Your task to perform on an android device: Check the news Image 0: 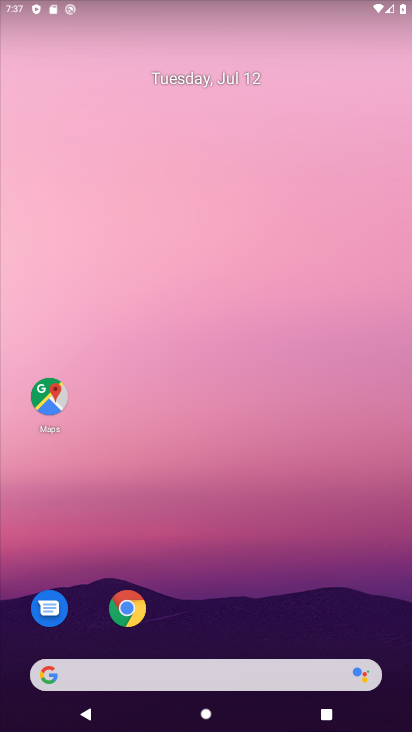
Step 0: drag from (188, 634) to (208, 288)
Your task to perform on an android device: Check the news Image 1: 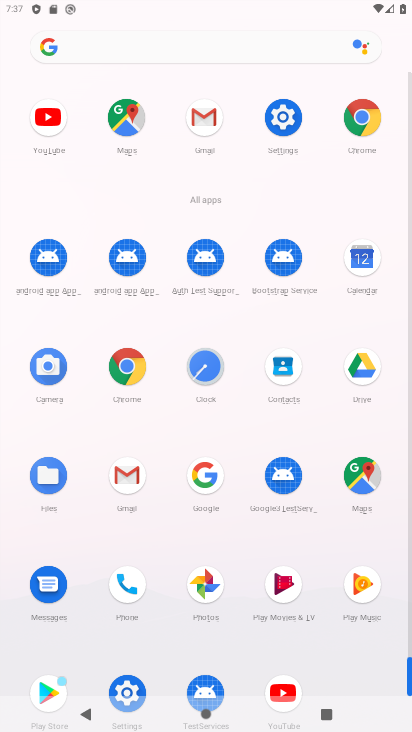
Step 1: click (358, 115)
Your task to perform on an android device: Check the news Image 2: 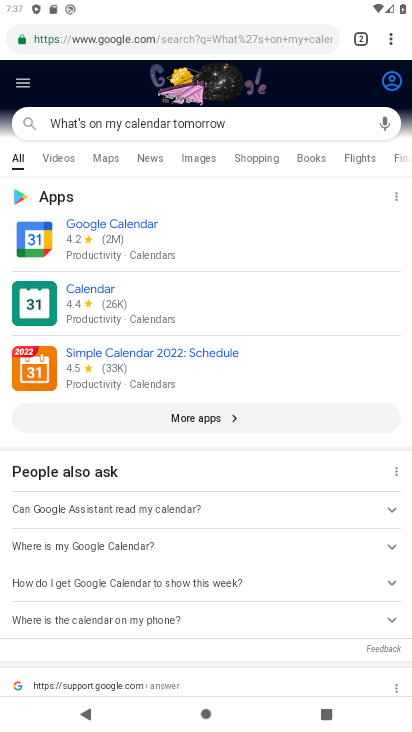
Step 2: click (397, 37)
Your task to perform on an android device: Check the news Image 3: 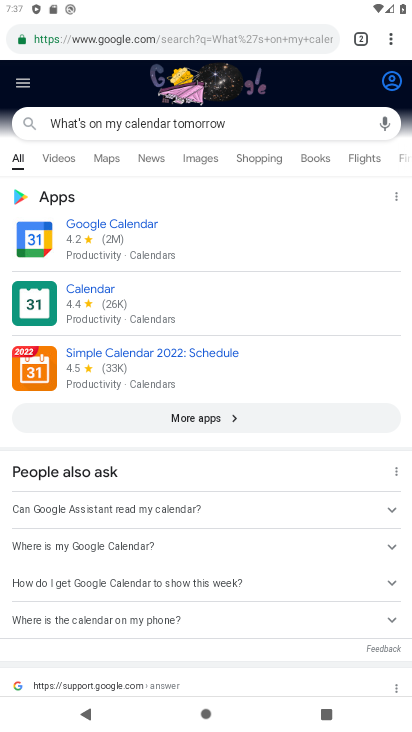
Step 3: click (390, 35)
Your task to perform on an android device: Check the news Image 4: 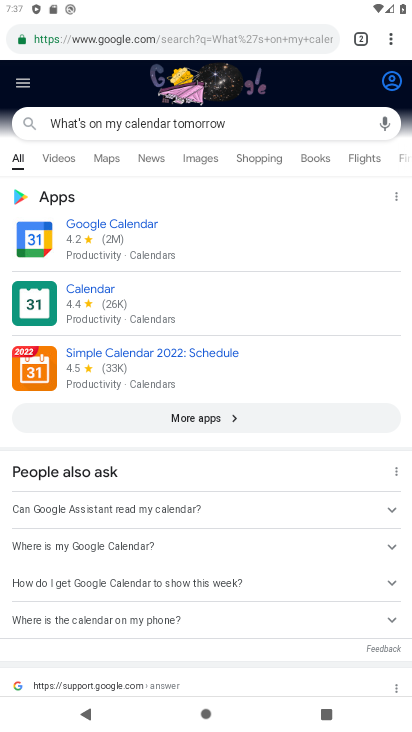
Step 4: click (390, 35)
Your task to perform on an android device: Check the news Image 5: 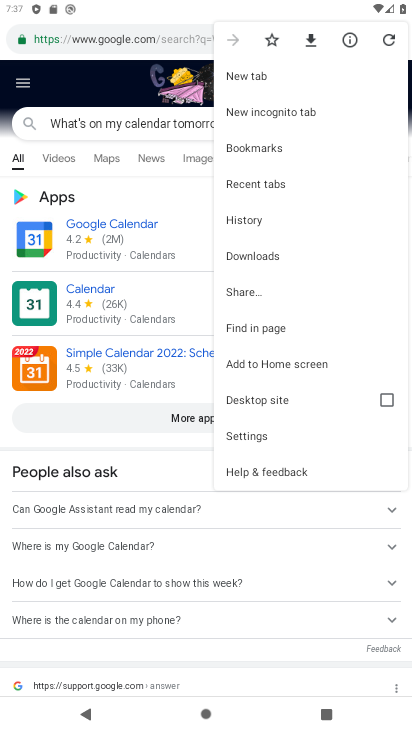
Step 5: click (252, 76)
Your task to perform on an android device: Check the news Image 6: 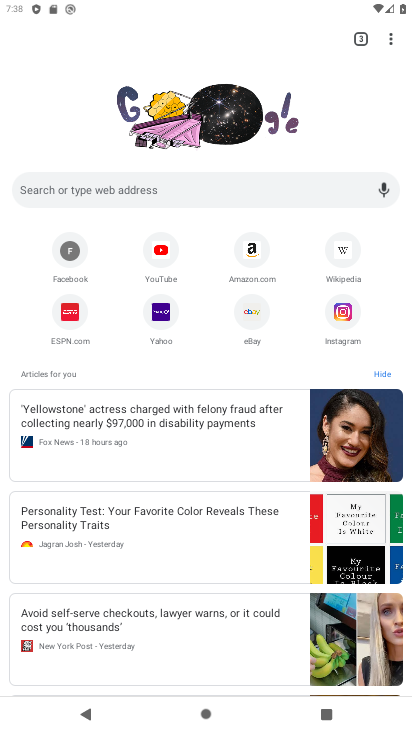
Step 6: click (190, 186)
Your task to perform on an android device: Check the news Image 7: 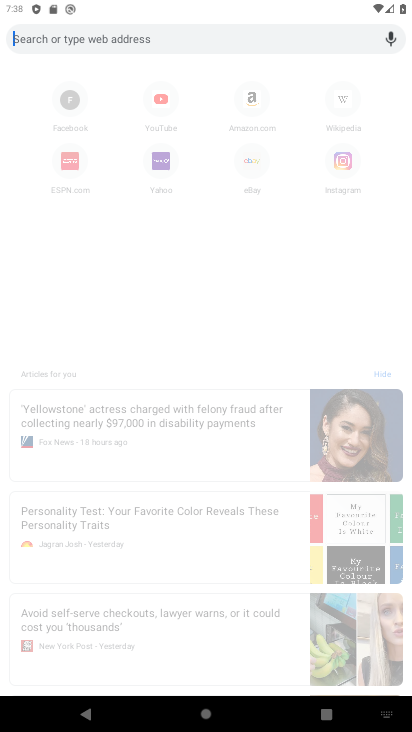
Step 7: type "Check the news "
Your task to perform on an android device: Check the news Image 8: 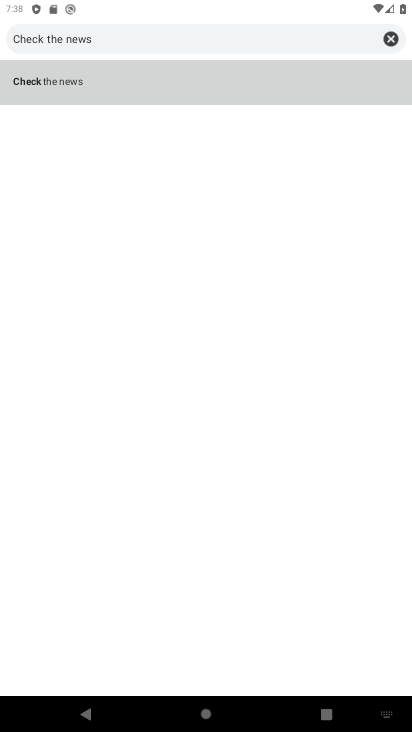
Step 8: click (143, 66)
Your task to perform on an android device: Check the news Image 9: 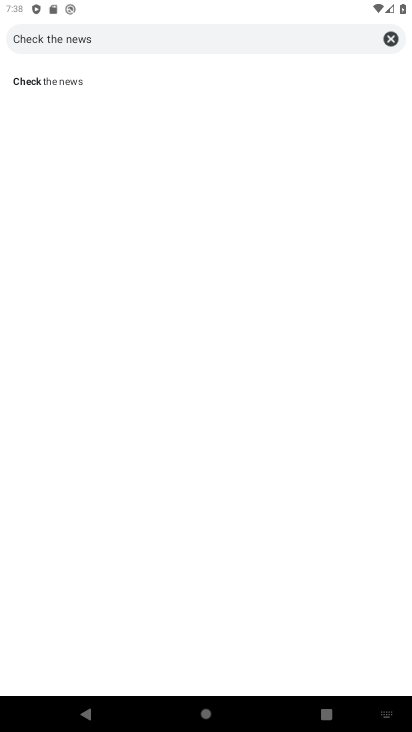
Step 9: click (20, 76)
Your task to perform on an android device: Check the news Image 10: 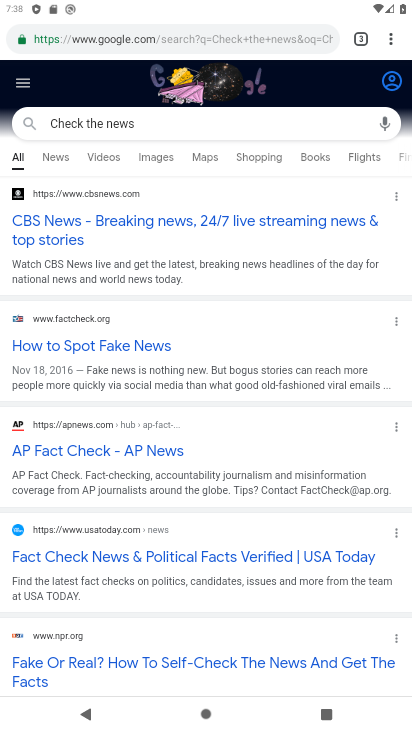
Step 10: task complete